Your task to perform on an android device: search for starred emails in the gmail app Image 0: 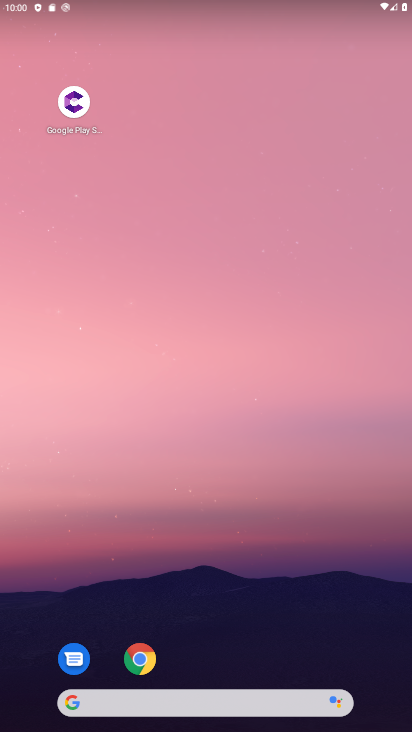
Step 0: drag from (296, 632) to (259, 309)
Your task to perform on an android device: search for starred emails in the gmail app Image 1: 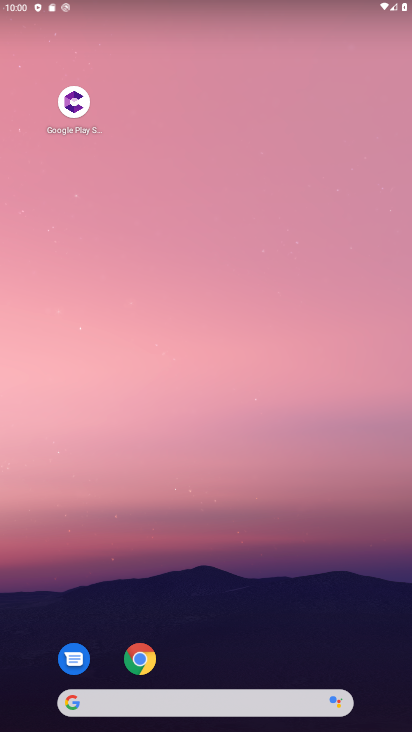
Step 1: drag from (292, 716) to (118, 74)
Your task to perform on an android device: search for starred emails in the gmail app Image 2: 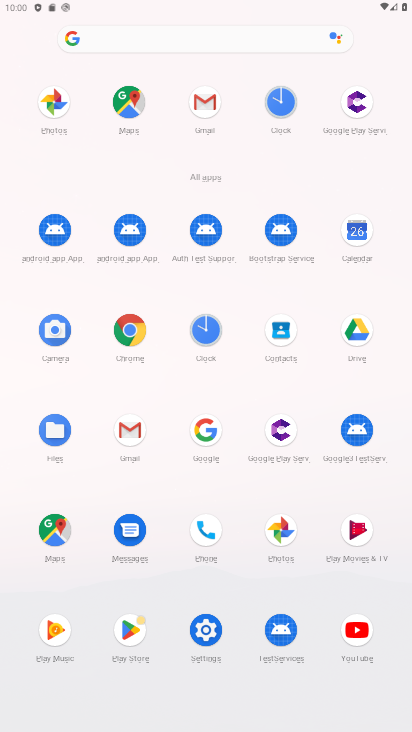
Step 2: click (138, 458)
Your task to perform on an android device: search for starred emails in the gmail app Image 3: 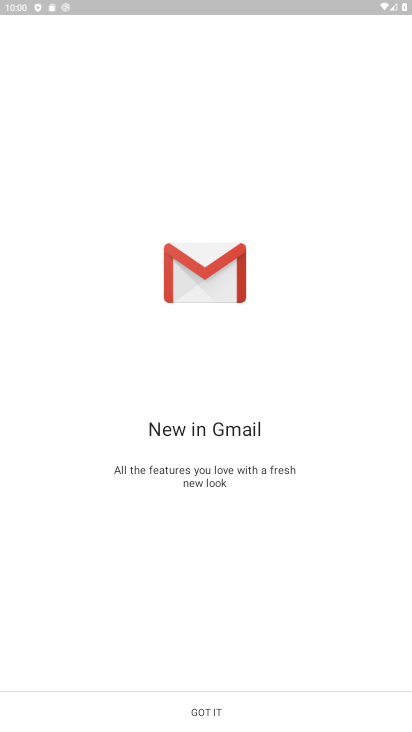
Step 3: click (190, 706)
Your task to perform on an android device: search for starred emails in the gmail app Image 4: 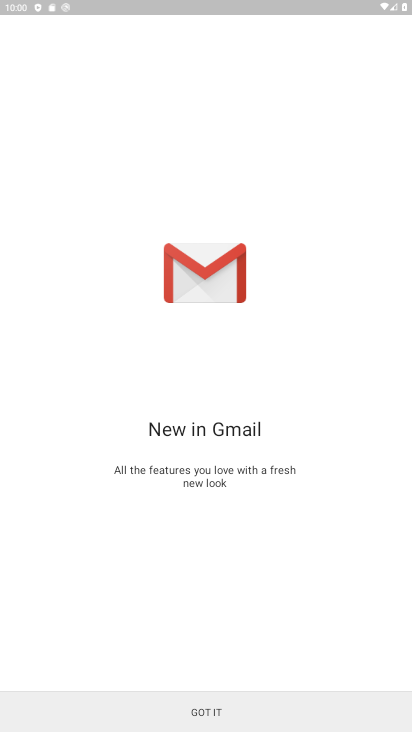
Step 4: click (190, 706)
Your task to perform on an android device: search for starred emails in the gmail app Image 5: 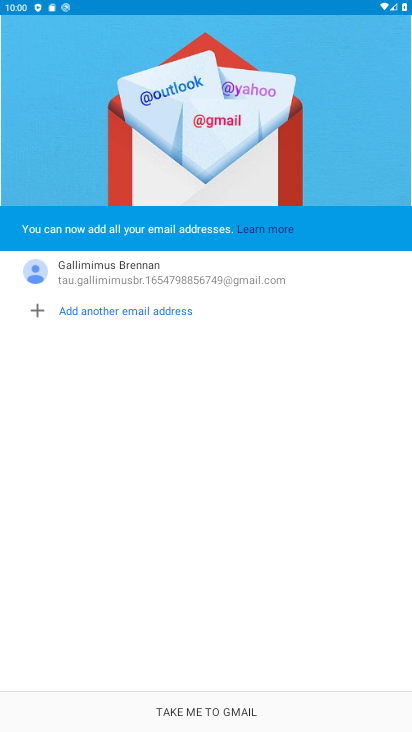
Step 5: click (190, 706)
Your task to perform on an android device: search for starred emails in the gmail app Image 6: 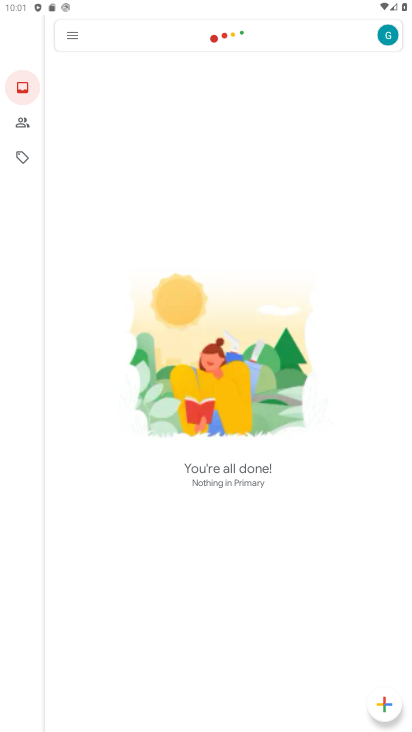
Step 6: click (76, 36)
Your task to perform on an android device: search for starred emails in the gmail app Image 7: 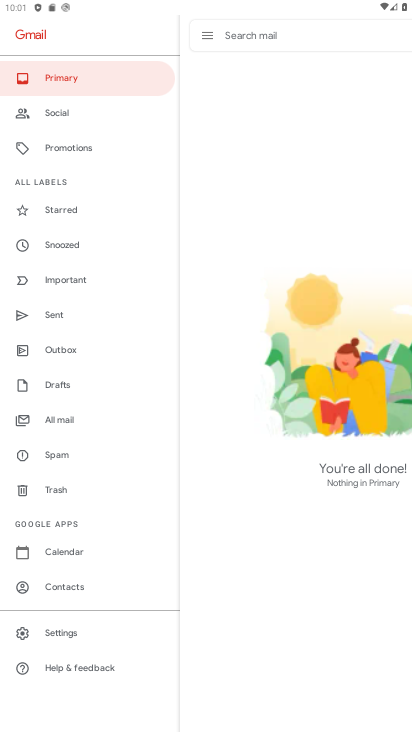
Step 7: click (31, 217)
Your task to perform on an android device: search for starred emails in the gmail app Image 8: 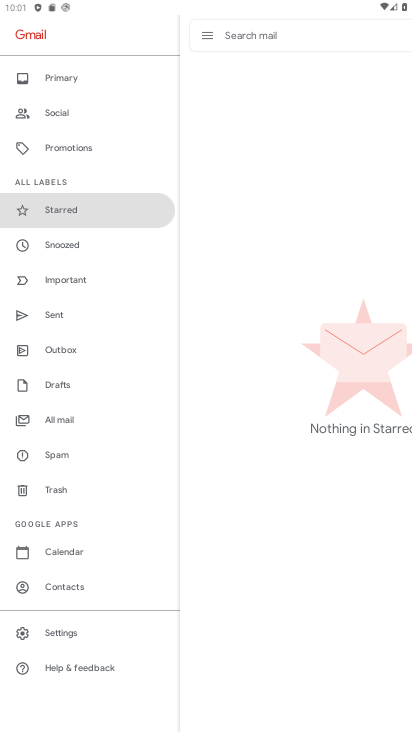
Step 8: task complete